Your task to perform on an android device: Open internet settings Image 0: 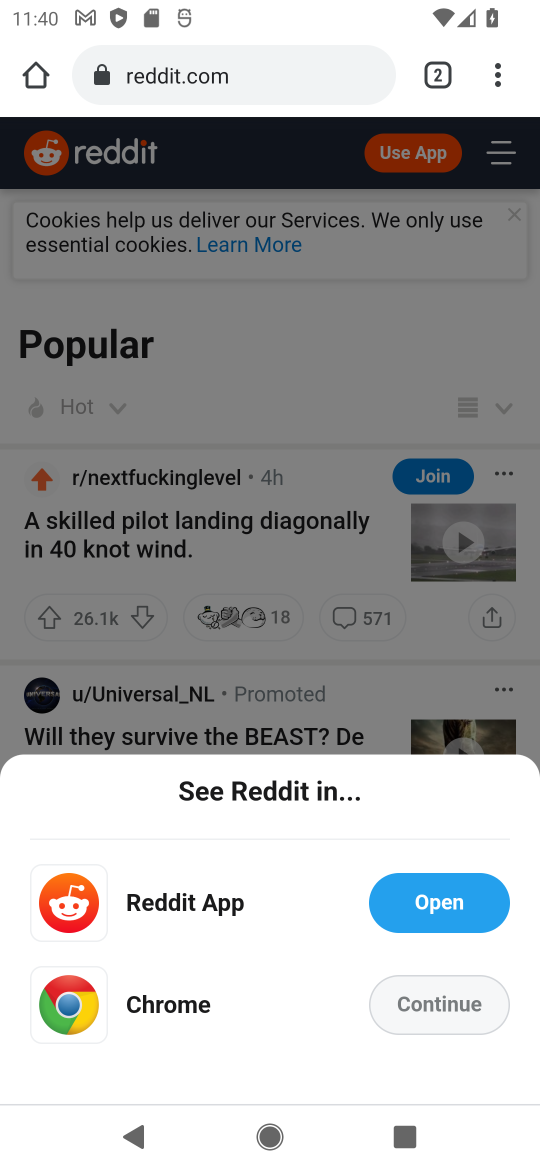
Step 0: press back button
Your task to perform on an android device: Open internet settings Image 1: 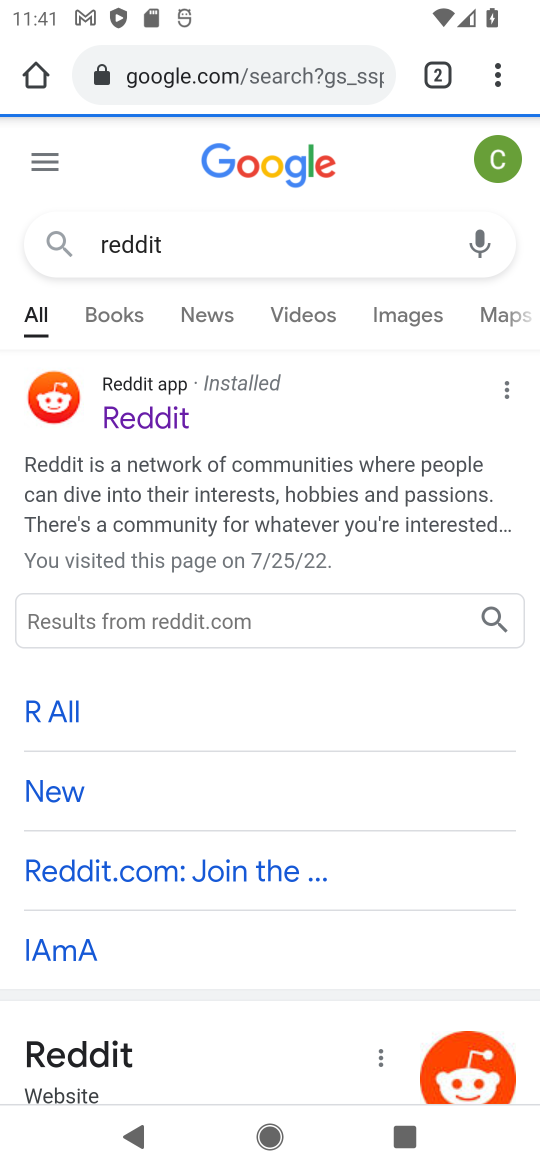
Step 1: press back button
Your task to perform on an android device: Open internet settings Image 2: 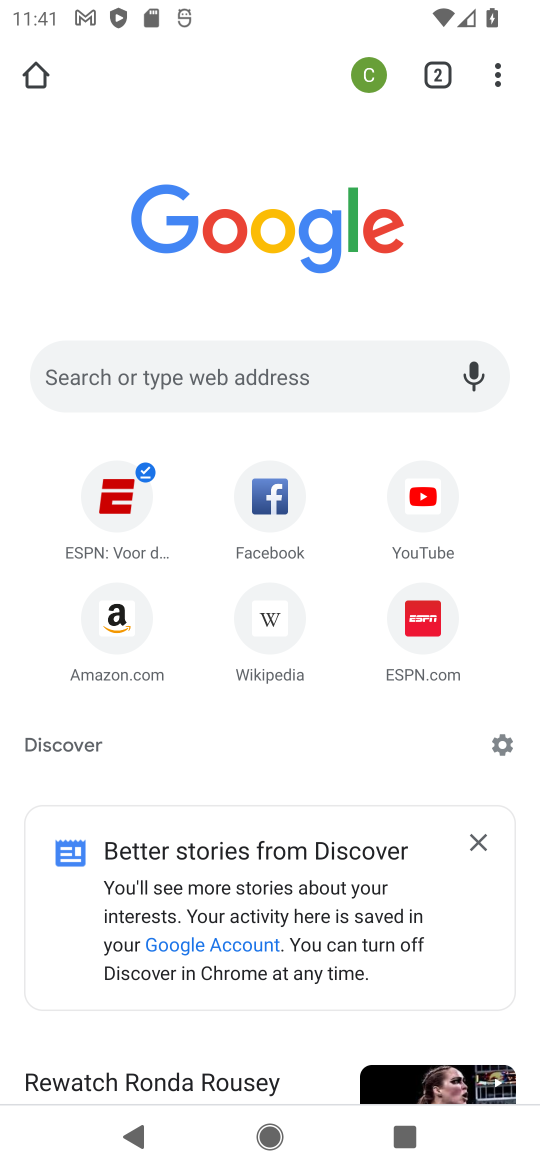
Step 2: press back button
Your task to perform on an android device: Open internet settings Image 3: 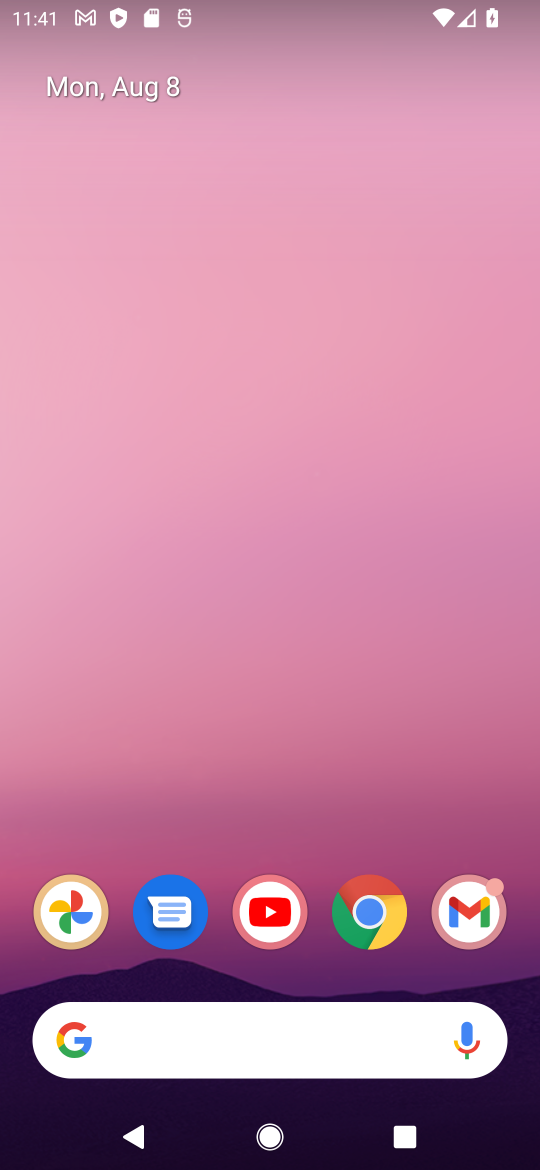
Step 3: drag from (222, 764) to (322, 15)
Your task to perform on an android device: Open internet settings Image 4: 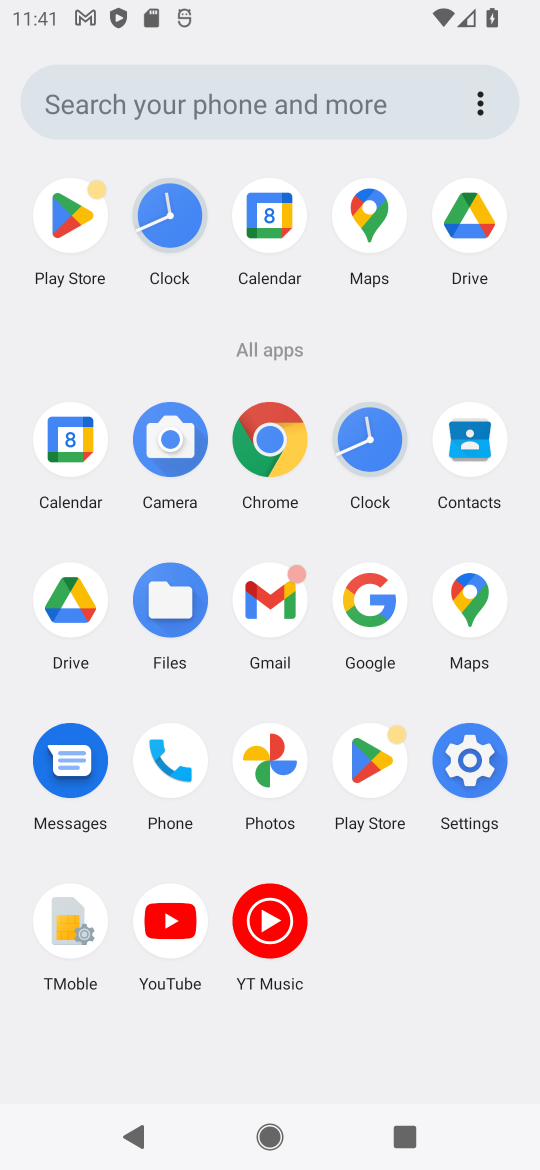
Step 4: click (479, 764)
Your task to perform on an android device: Open internet settings Image 5: 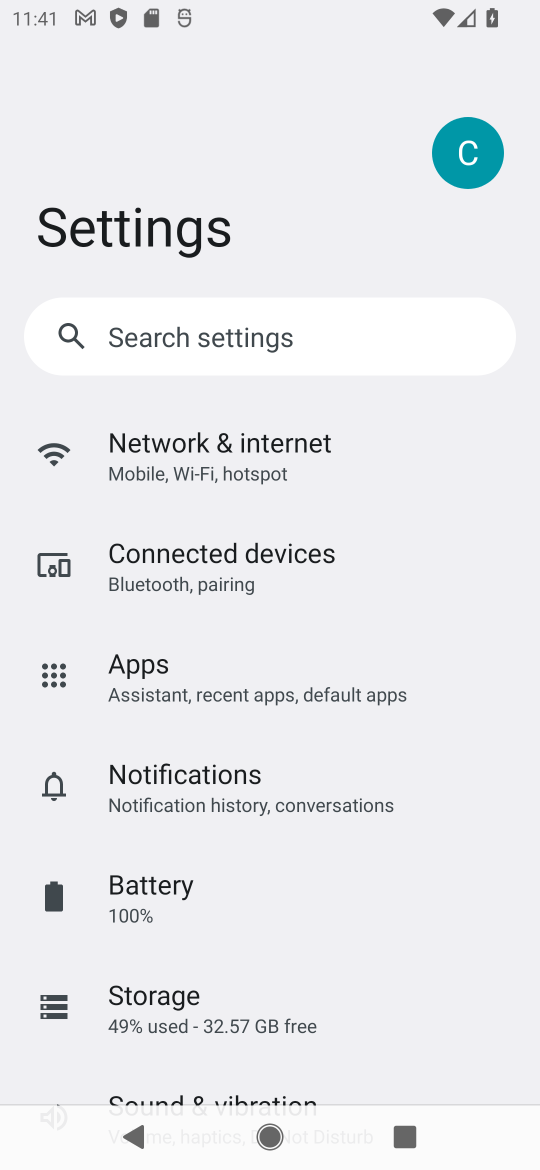
Step 5: click (231, 472)
Your task to perform on an android device: Open internet settings Image 6: 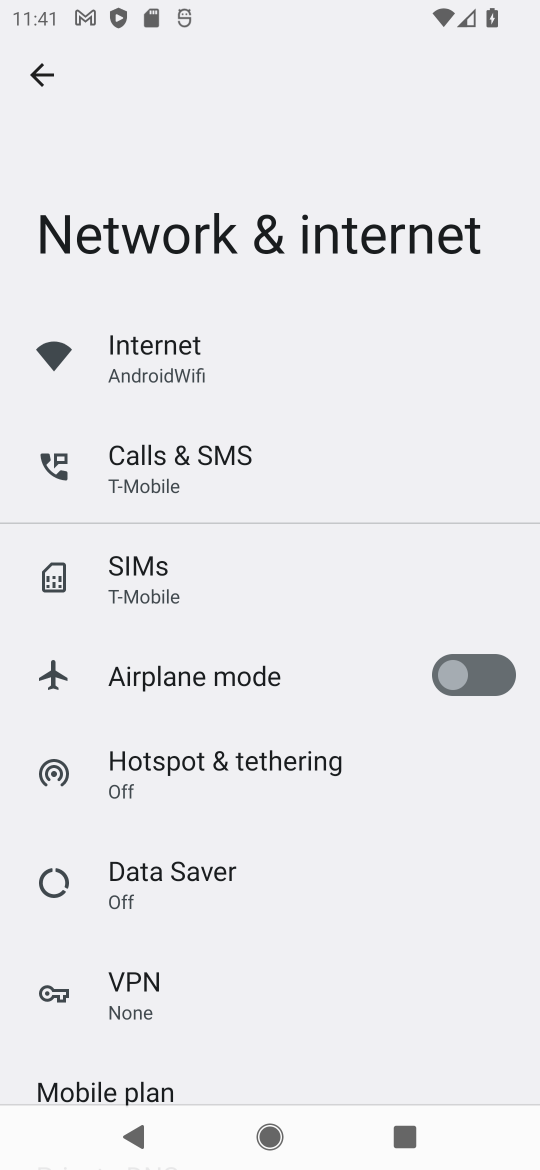
Step 6: task complete